Your task to perform on an android device: Do I have any events this weekend? Image 0: 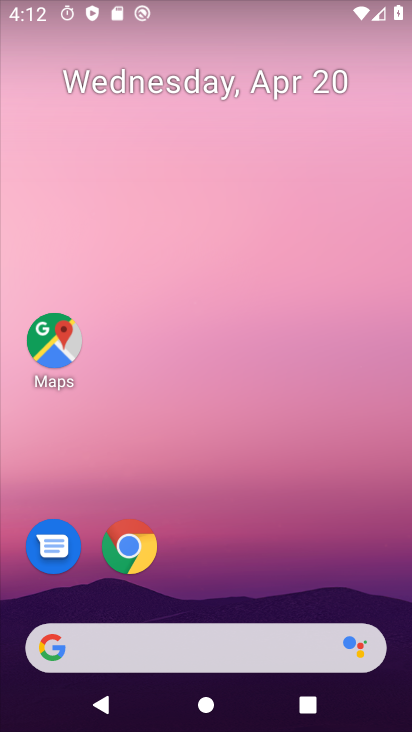
Step 0: drag from (284, 533) to (271, 112)
Your task to perform on an android device: Do I have any events this weekend? Image 1: 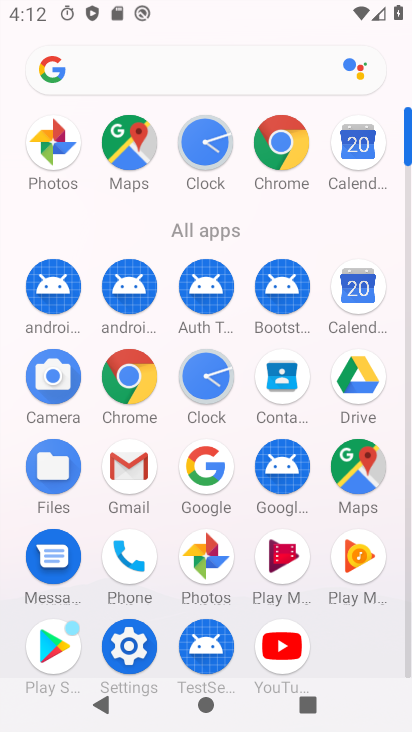
Step 1: click (368, 285)
Your task to perform on an android device: Do I have any events this weekend? Image 2: 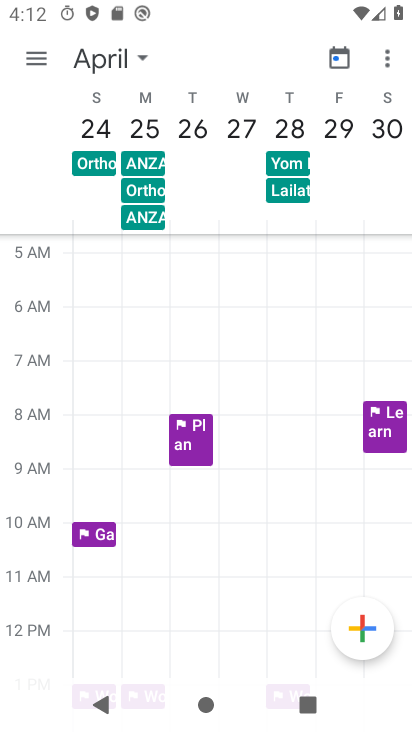
Step 2: click (389, 427)
Your task to perform on an android device: Do I have any events this weekend? Image 3: 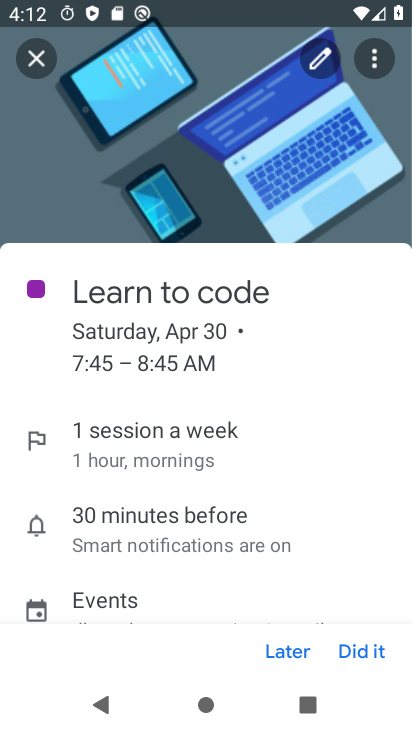
Step 3: task complete